Your task to perform on an android device: turn on improve location accuracy Image 0: 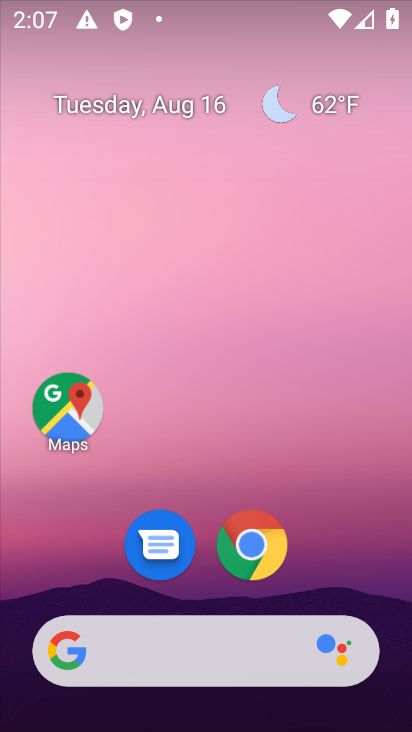
Step 0: drag from (134, 610) to (190, 75)
Your task to perform on an android device: turn on improve location accuracy Image 1: 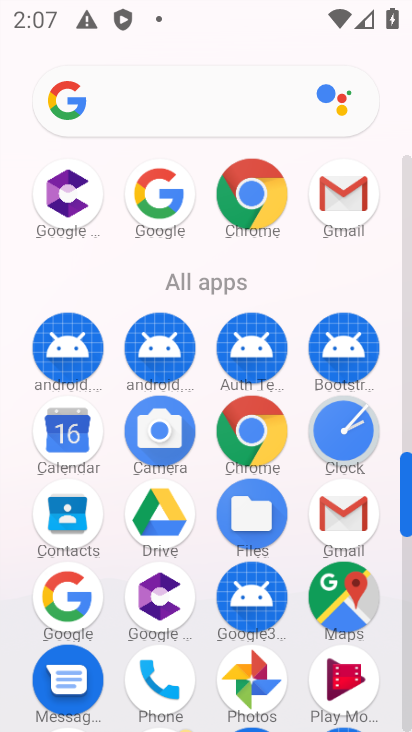
Step 1: drag from (119, 649) to (116, 232)
Your task to perform on an android device: turn on improve location accuracy Image 2: 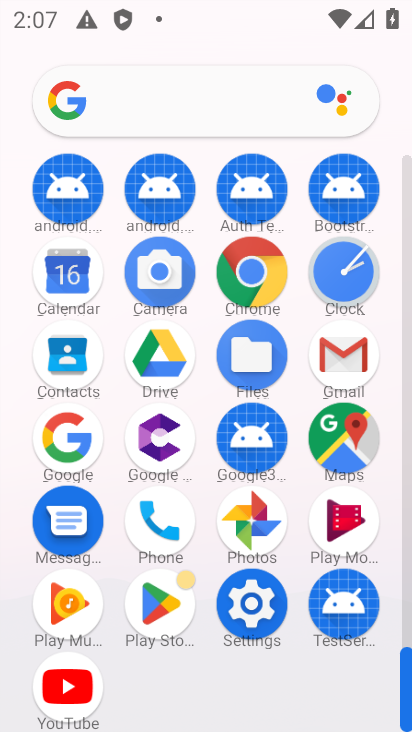
Step 2: click (255, 618)
Your task to perform on an android device: turn on improve location accuracy Image 3: 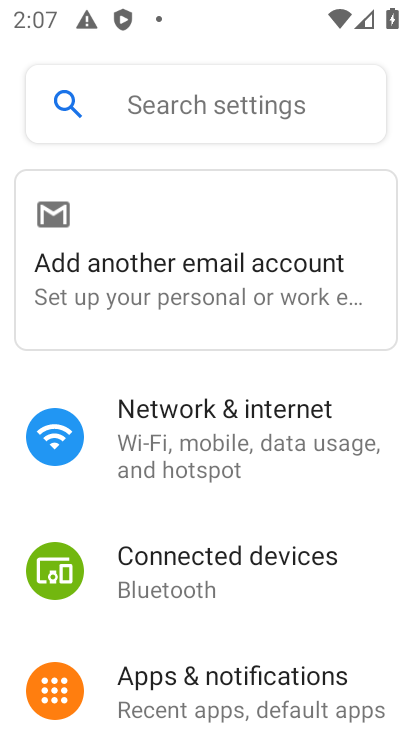
Step 3: drag from (248, 684) to (220, 319)
Your task to perform on an android device: turn on improve location accuracy Image 4: 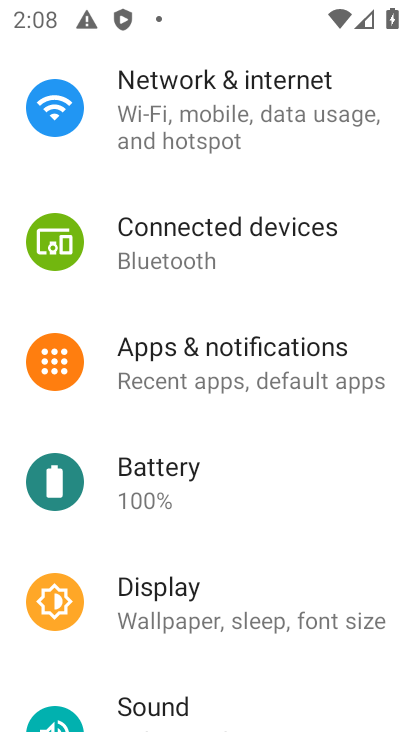
Step 4: drag from (182, 719) to (182, 473)
Your task to perform on an android device: turn on improve location accuracy Image 5: 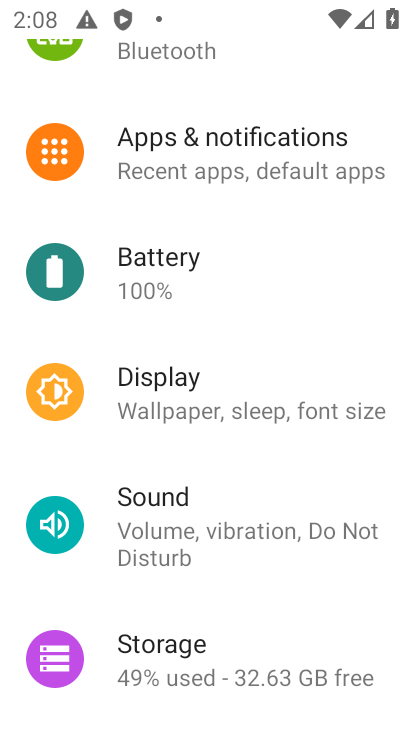
Step 5: drag from (177, 636) to (200, 355)
Your task to perform on an android device: turn on improve location accuracy Image 6: 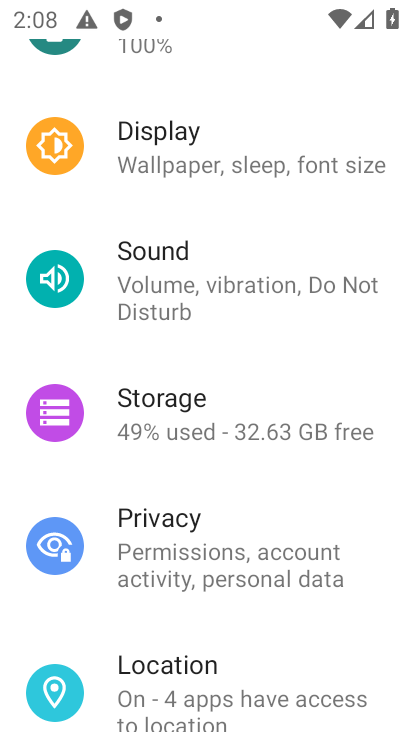
Step 6: click (184, 699)
Your task to perform on an android device: turn on improve location accuracy Image 7: 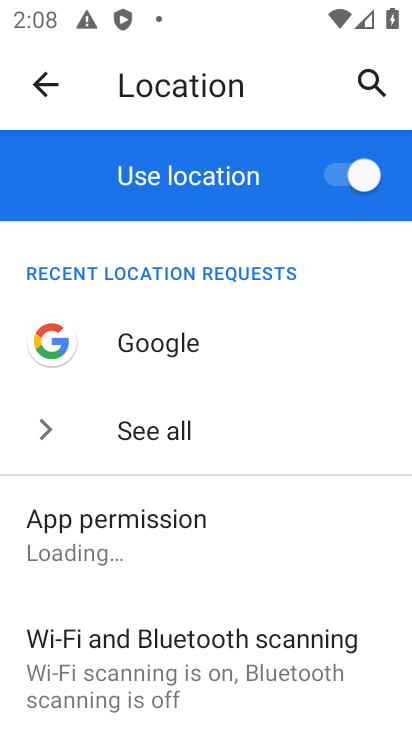
Step 7: drag from (157, 684) to (159, 314)
Your task to perform on an android device: turn on improve location accuracy Image 8: 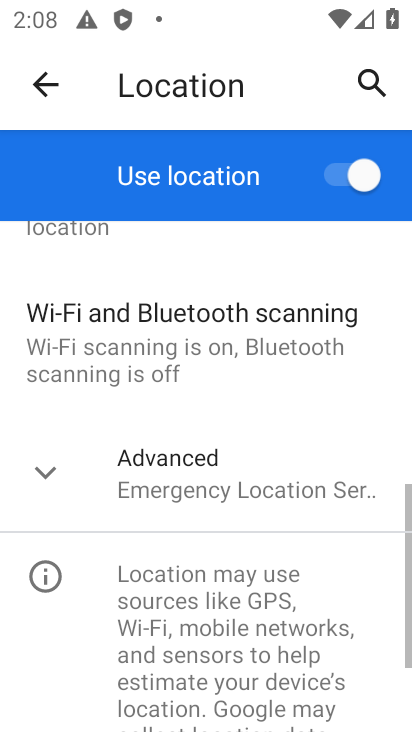
Step 8: click (190, 476)
Your task to perform on an android device: turn on improve location accuracy Image 9: 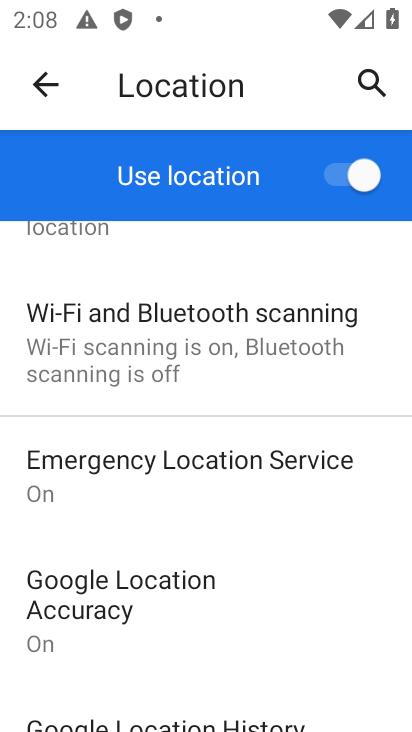
Step 9: drag from (189, 631) to (189, 303)
Your task to perform on an android device: turn on improve location accuracy Image 10: 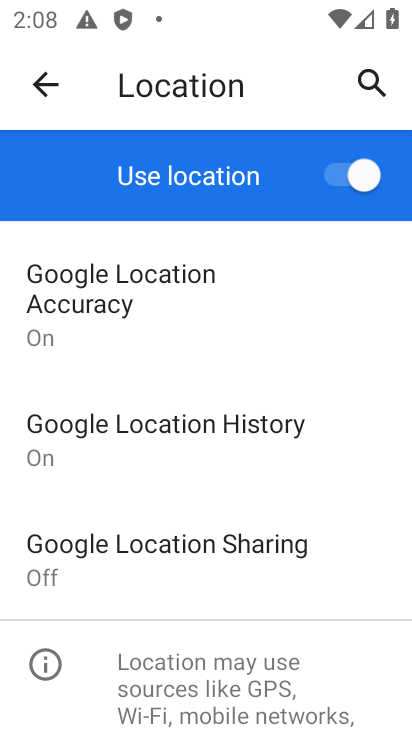
Step 10: click (37, 301)
Your task to perform on an android device: turn on improve location accuracy Image 11: 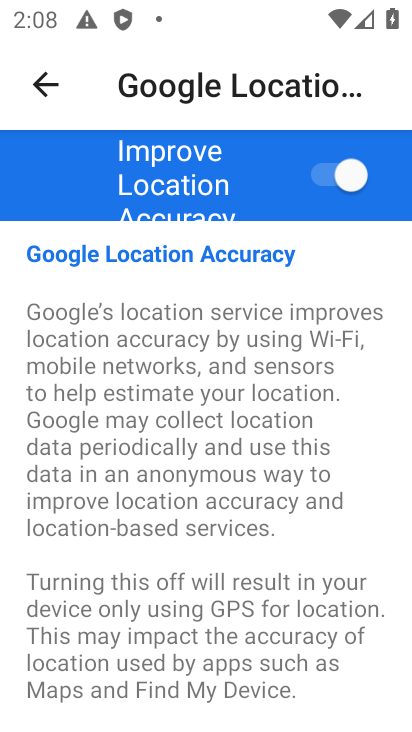
Step 11: task complete